Your task to perform on an android device: Toggle the flashlight Image 0: 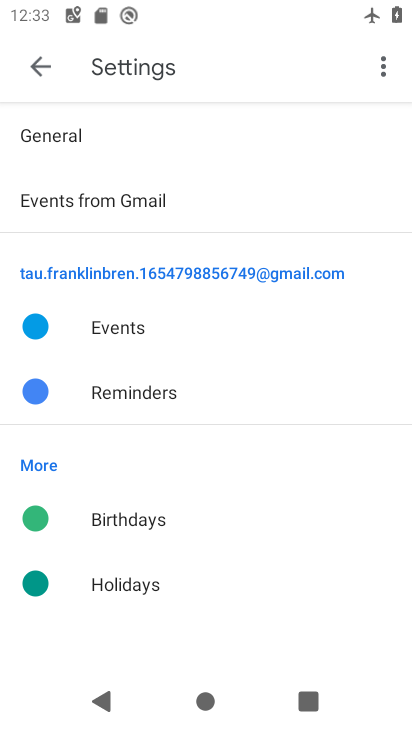
Step 0: press home button
Your task to perform on an android device: Toggle the flashlight Image 1: 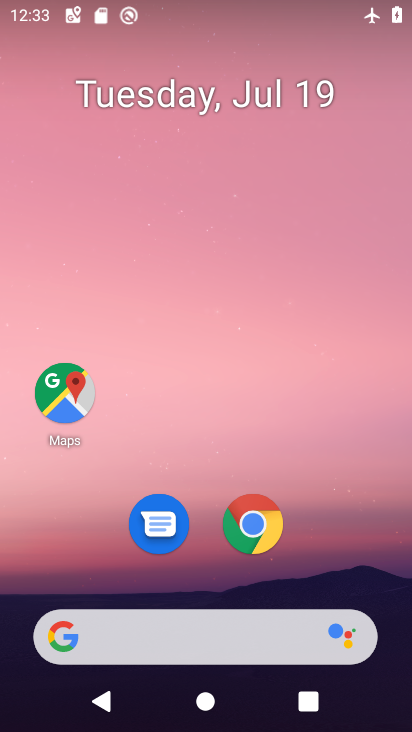
Step 1: drag from (316, 526) to (296, 38)
Your task to perform on an android device: Toggle the flashlight Image 2: 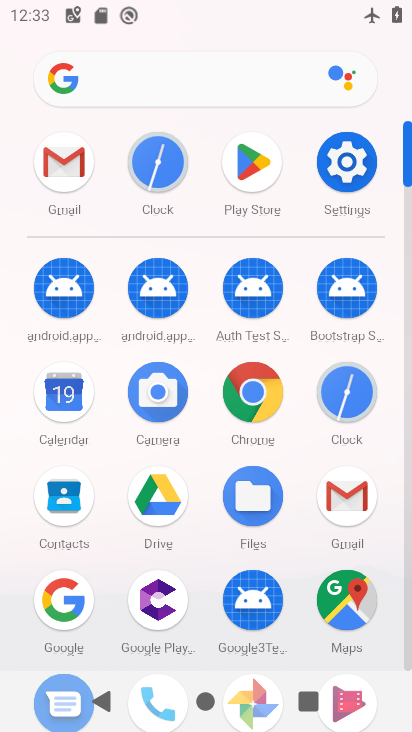
Step 2: click (339, 163)
Your task to perform on an android device: Toggle the flashlight Image 3: 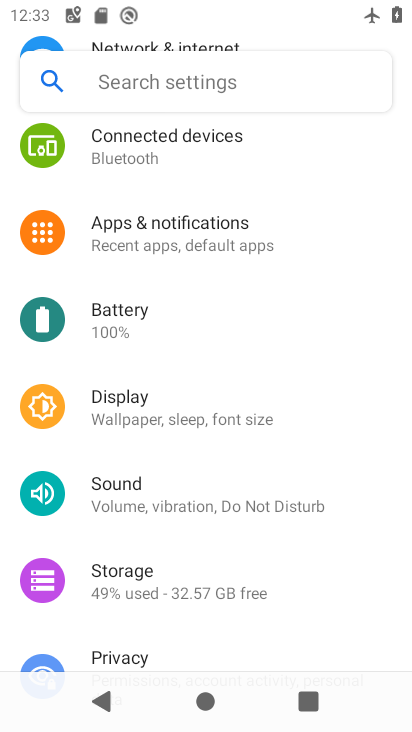
Step 3: drag from (223, 304) to (221, 667)
Your task to perform on an android device: Toggle the flashlight Image 4: 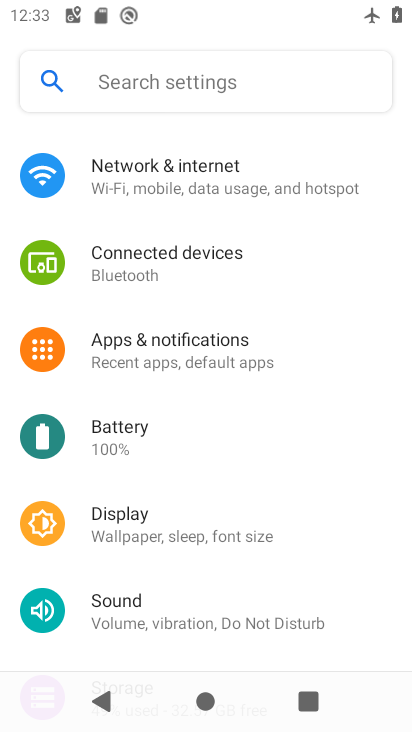
Step 4: click (255, 74)
Your task to perform on an android device: Toggle the flashlight Image 5: 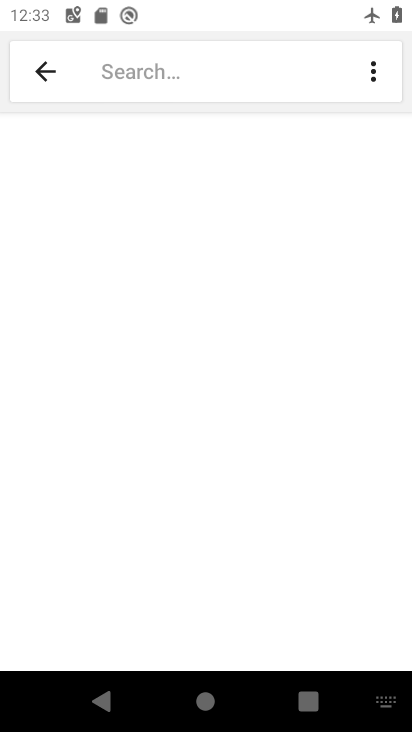
Step 5: type "Flashlight"
Your task to perform on an android device: Toggle the flashlight Image 6: 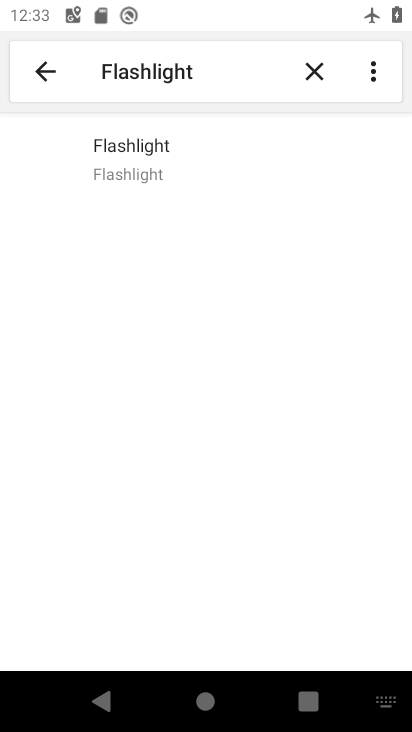
Step 6: click (138, 154)
Your task to perform on an android device: Toggle the flashlight Image 7: 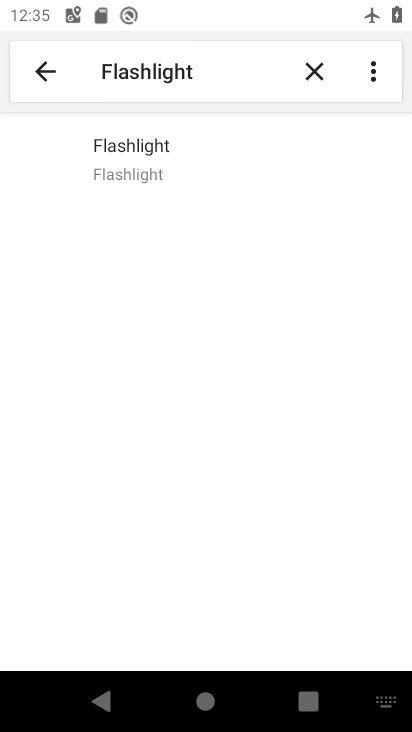
Step 7: task complete